Your task to perform on an android device: uninstall "Gmail" Image 0: 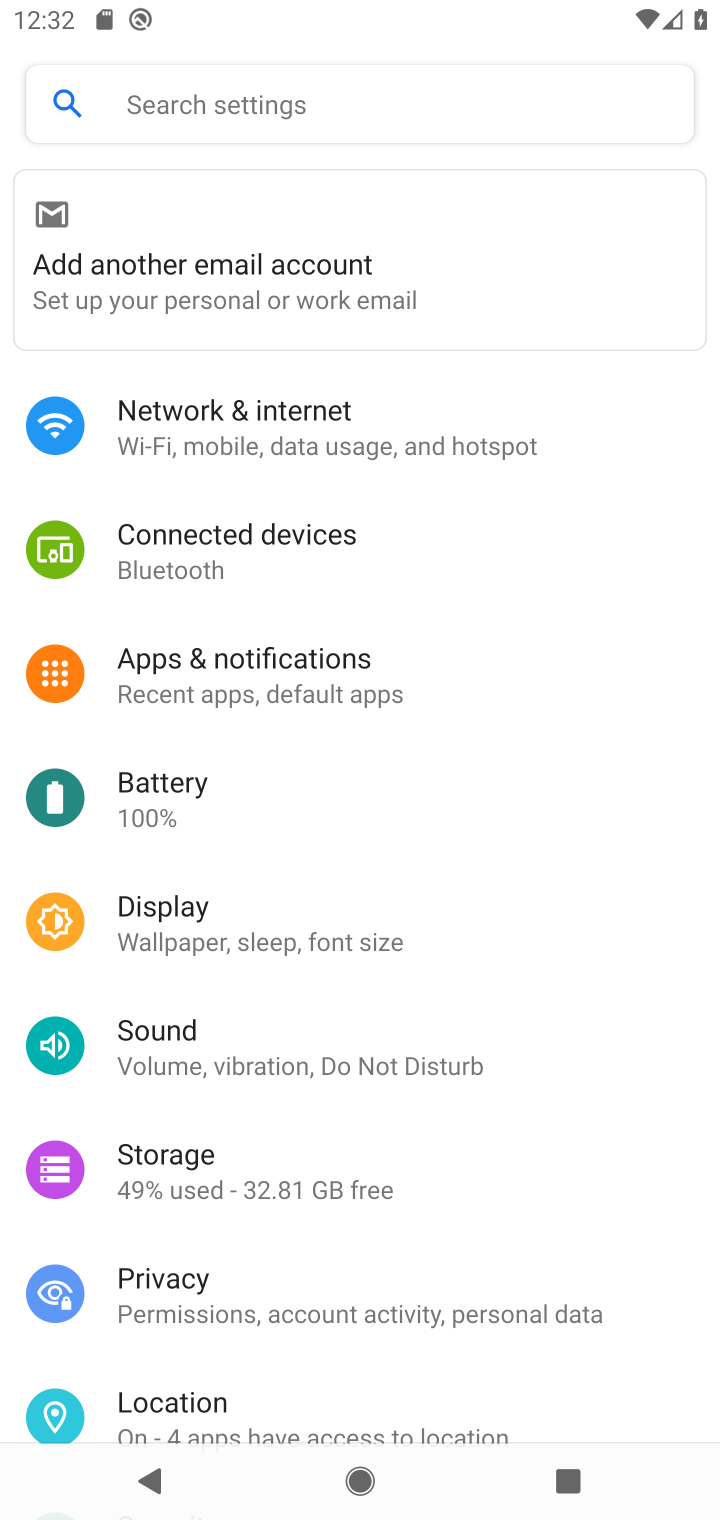
Step 0: press home button
Your task to perform on an android device: uninstall "Gmail" Image 1: 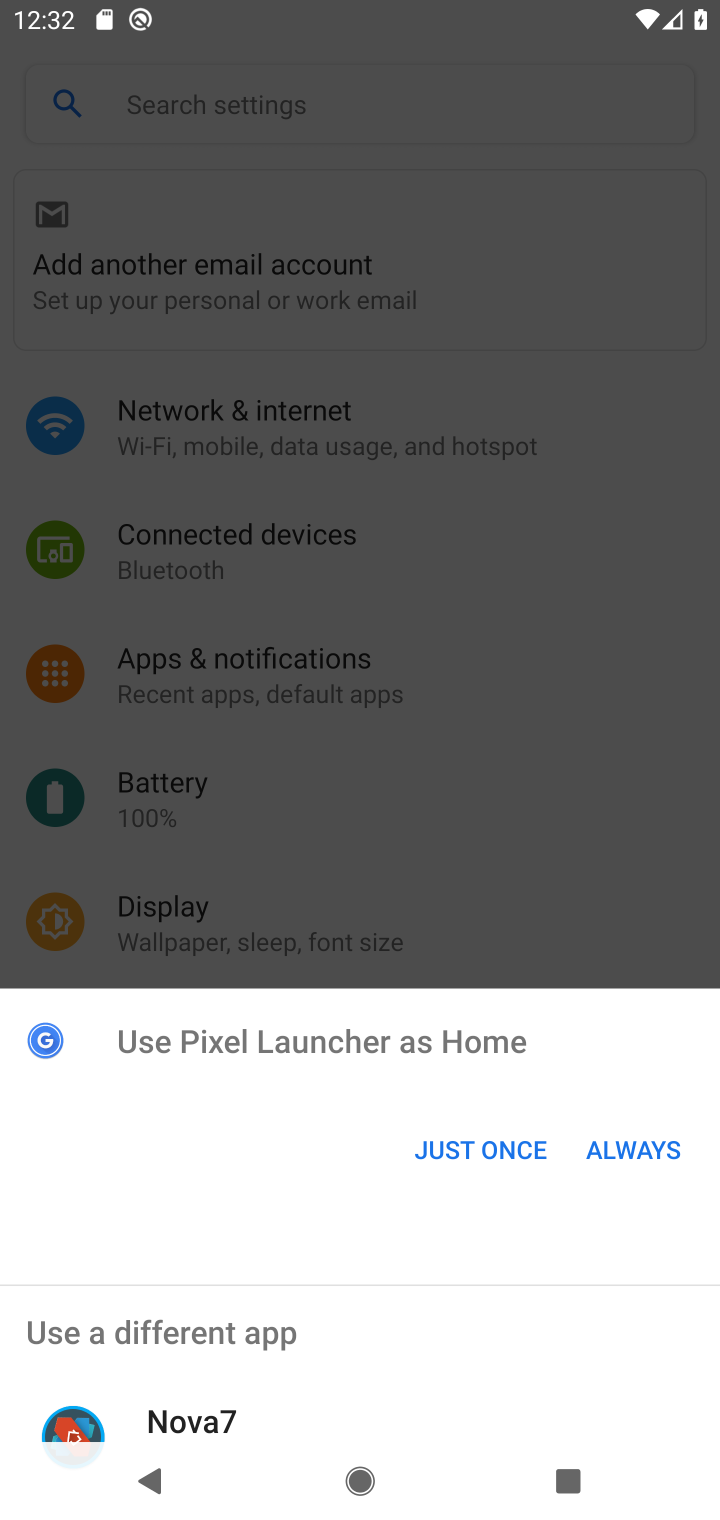
Step 1: click (638, 1153)
Your task to perform on an android device: uninstall "Gmail" Image 2: 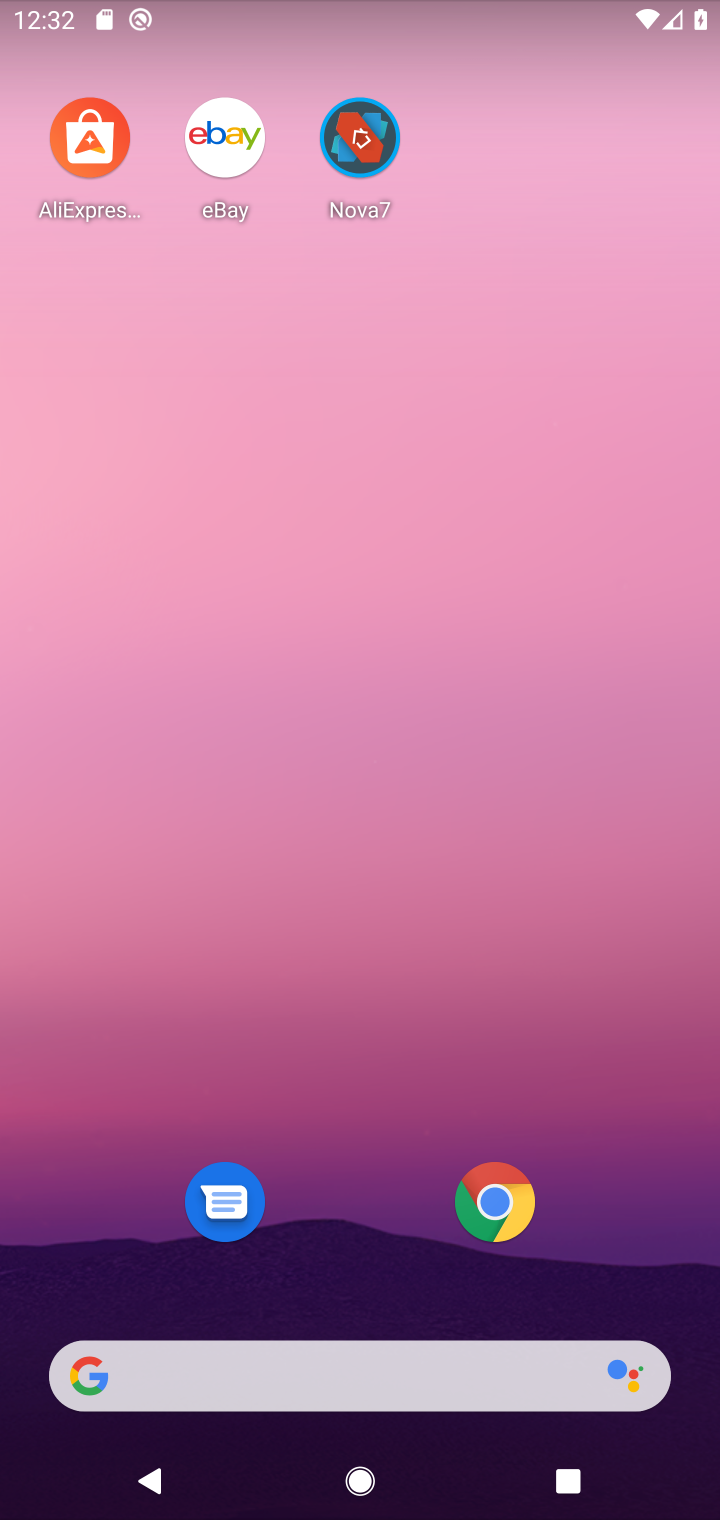
Step 2: drag from (337, 1320) to (277, 81)
Your task to perform on an android device: uninstall "Gmail" Image 3: 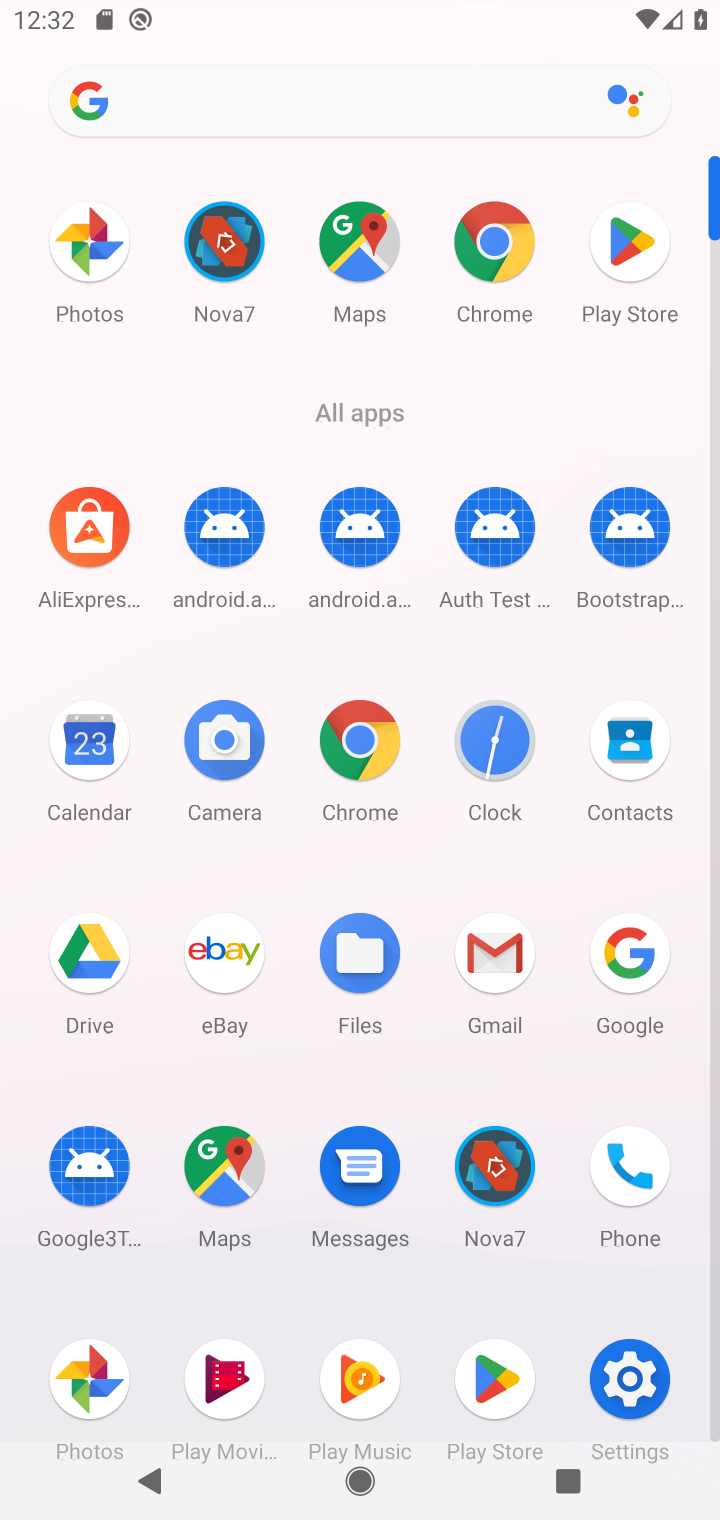
Step 3: click (630, 230)
Your task to perform on an android device: uninstall "Gmail" Image 4: 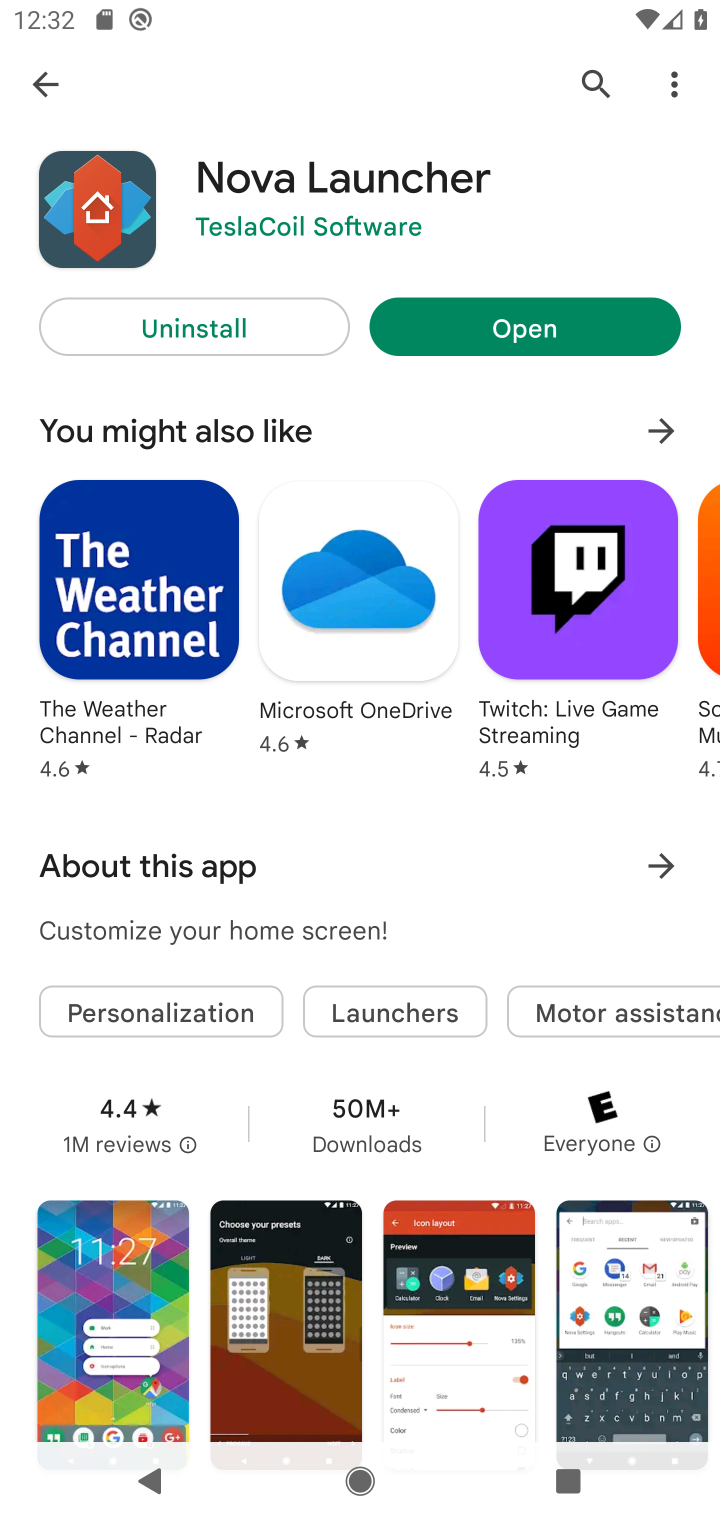
Step 4: click (579, 81)
Your task to perform on an android device: uninstall "Gmail" Image 5: 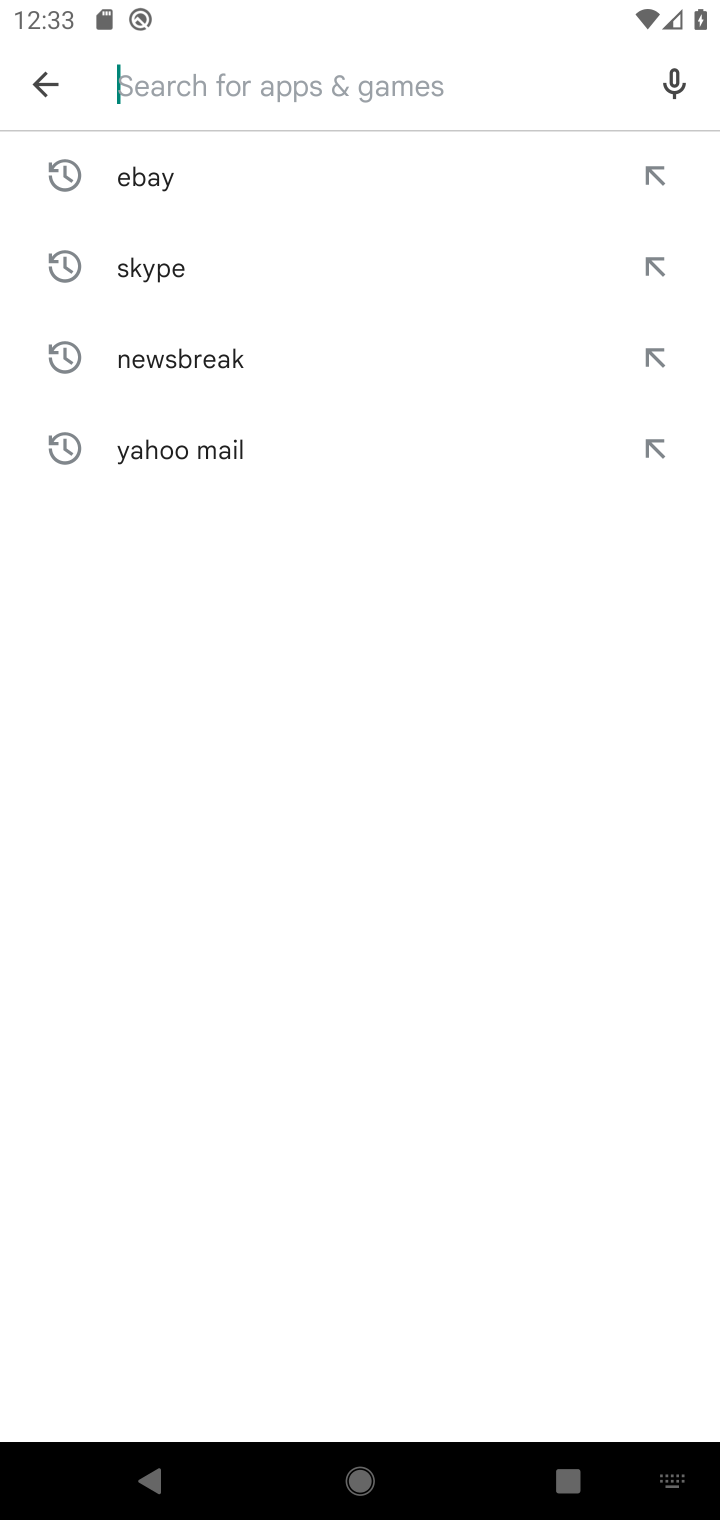
Step 5: type "gmail"
Your task to perform on an android device: uninstall "Gmail" Image 6: 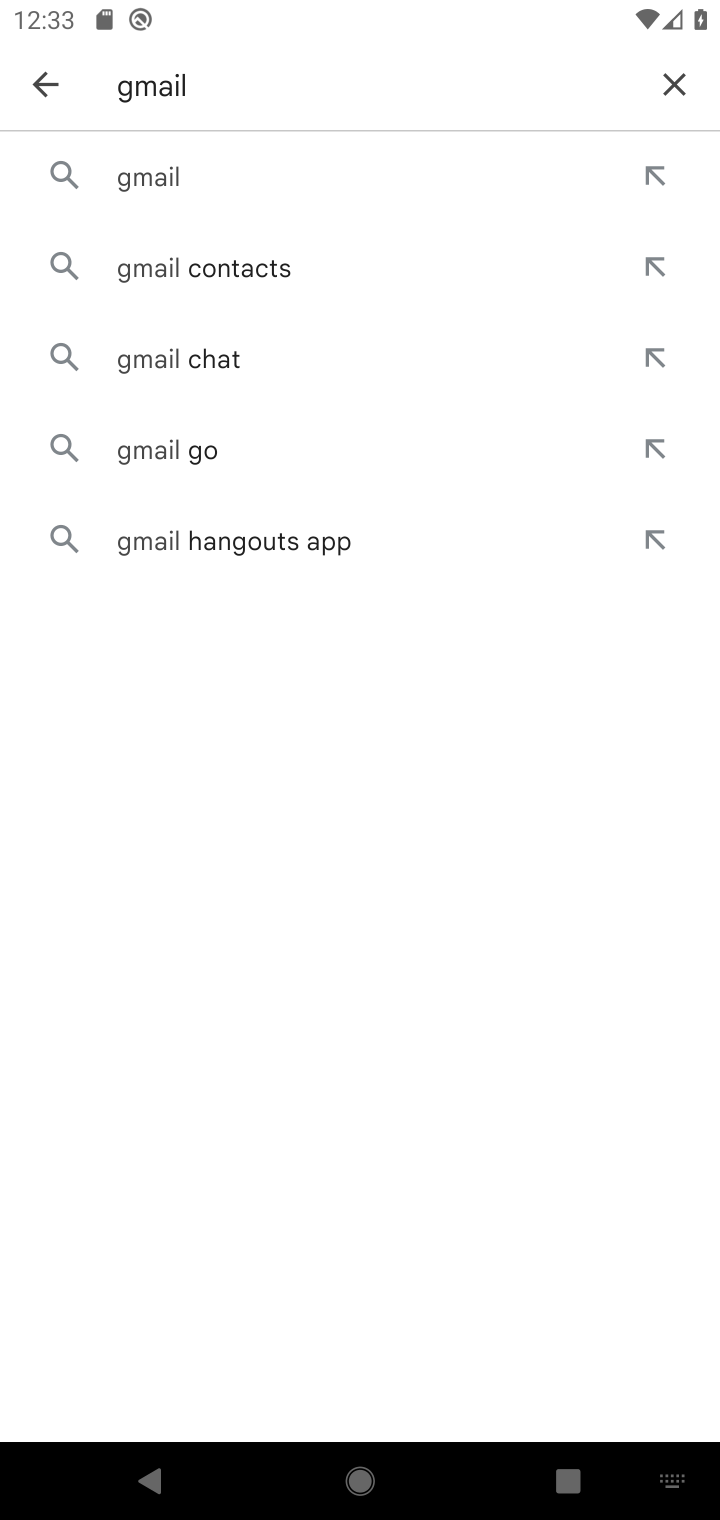
Step 6: click (193, 168)
Your task to perform on an android device: uninstall "Gmail" Image 7: 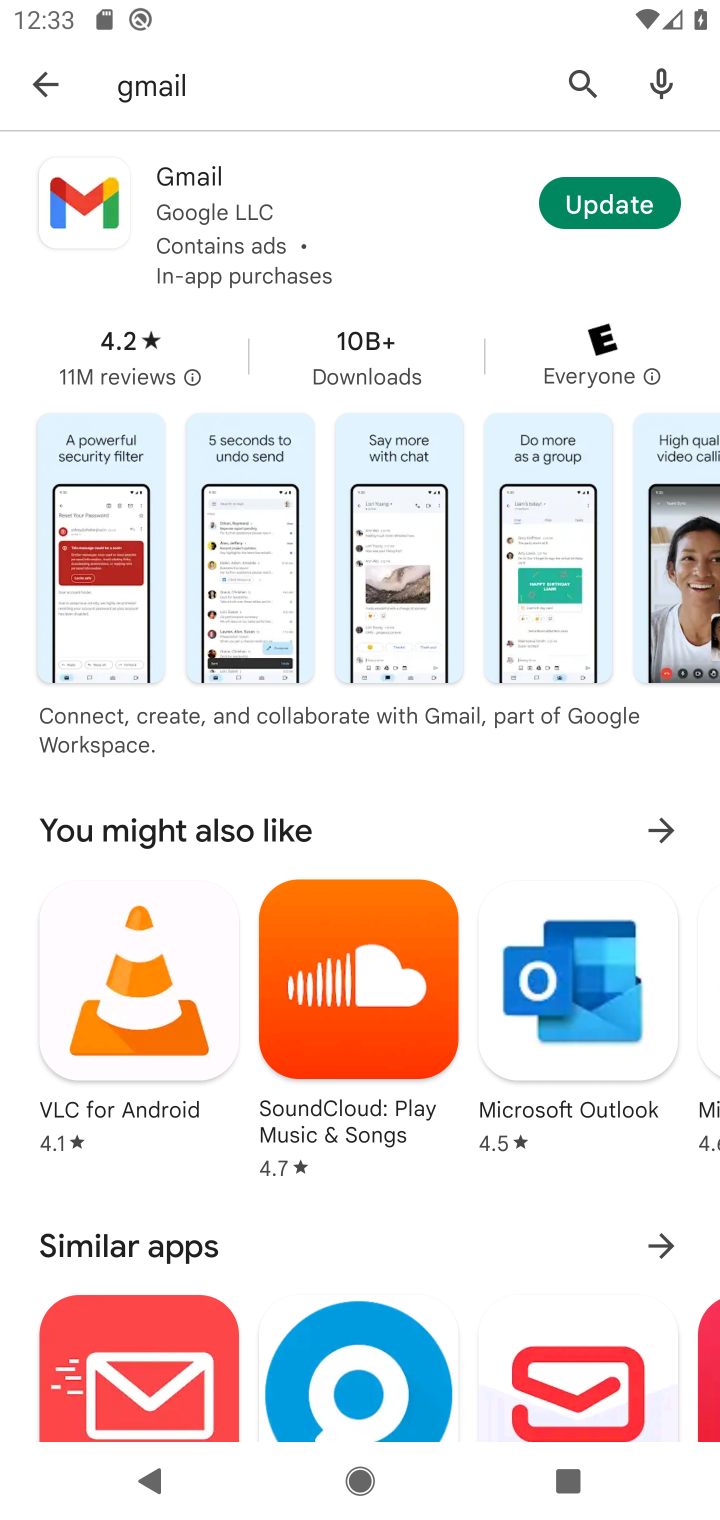
Step 7: click (267, 233)
Your task to perform on an android device: uninstall "Gmail" Image 8: 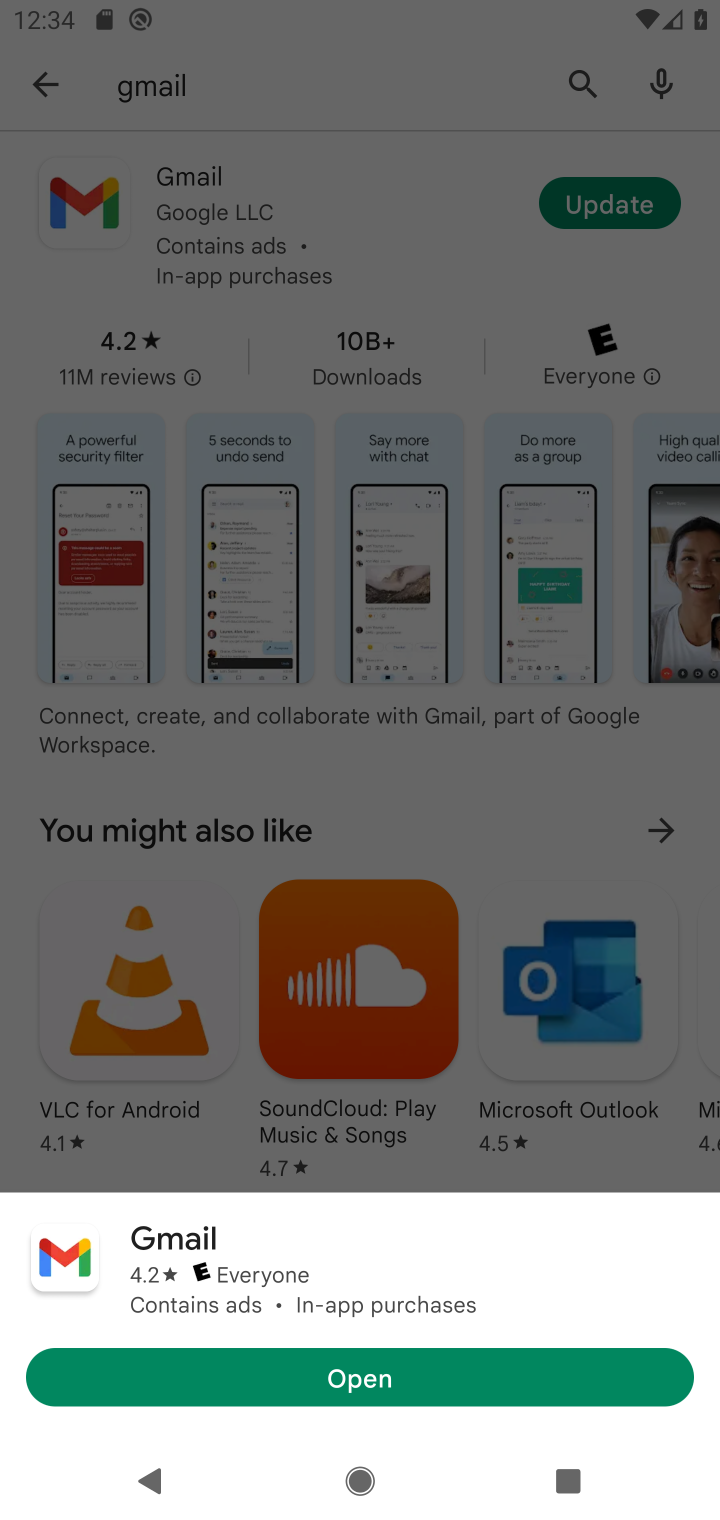
Step 8: task complete